Your task to perform on an android device: change alarm snooze length Image 0: 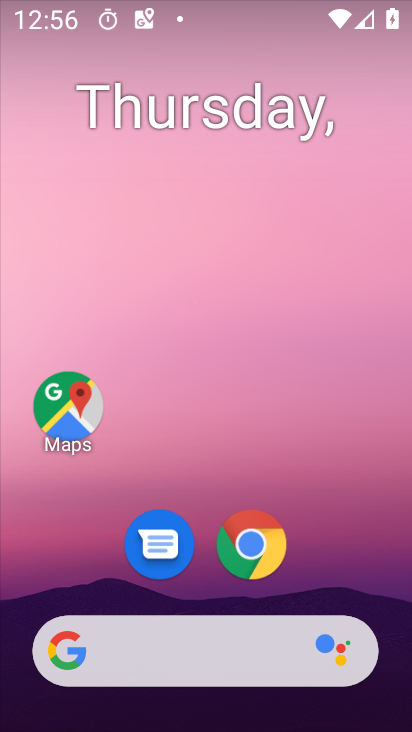
Step 0: drag from (3, 730) to (237, 219)
Your task to perform on an android device: change alarm snooze length Image 1: 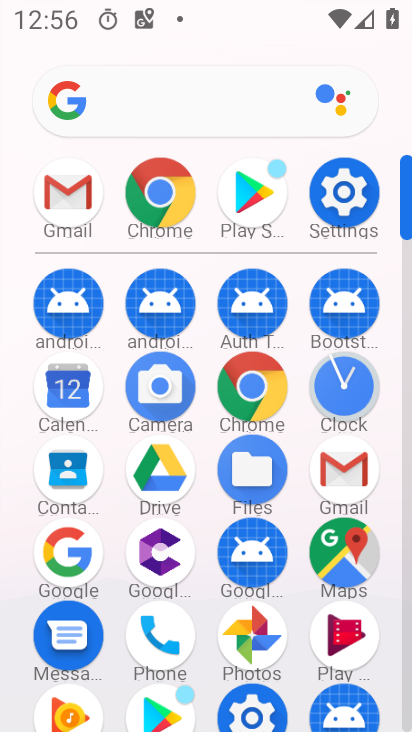
Step 1: click (342, 391)
Your task to perform on an android device: change alarm snooze length Image 2: 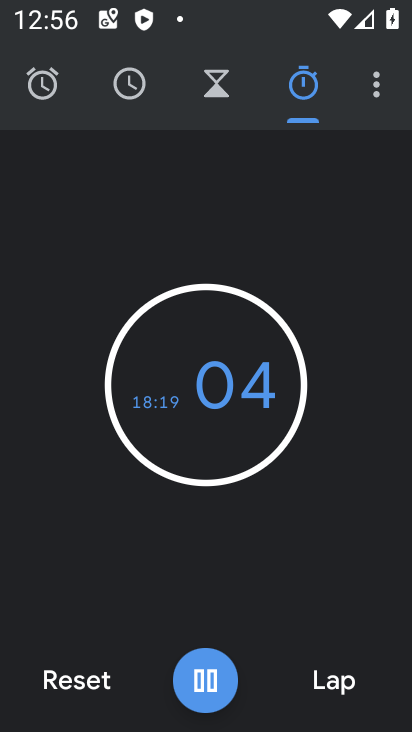
Step 2: click (384, 94)
Your task to perform on an android device: change alarm snooze length Image 3: 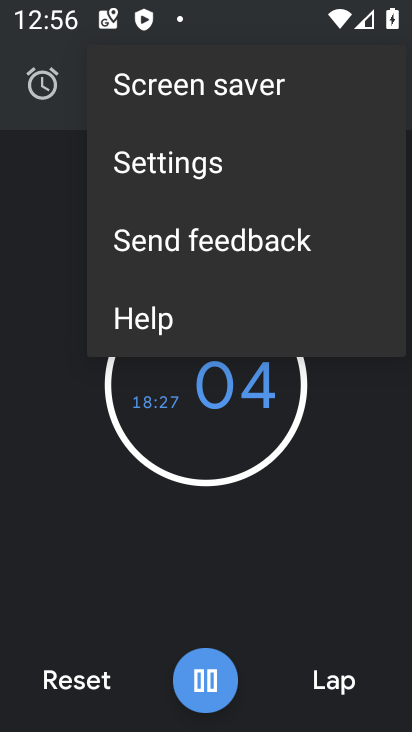
Step 3: click (183, 162)
Your task to perform on an android device: change alarm snooze length Image 4: 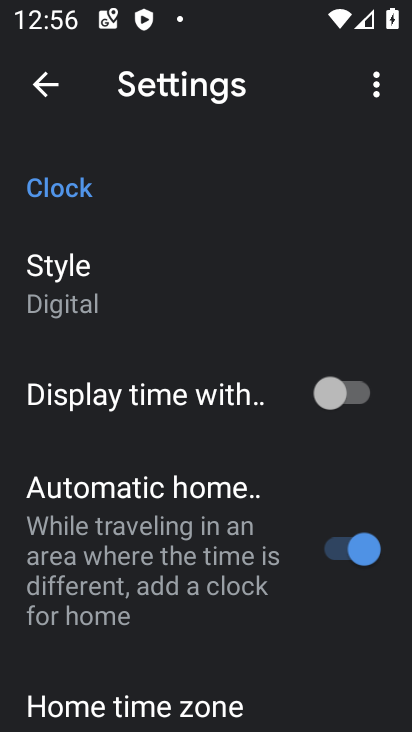
Step 4: drag from (107, 691) to (198, 148)
Your task to perform on an android device: change alarm snooze length Image 5: 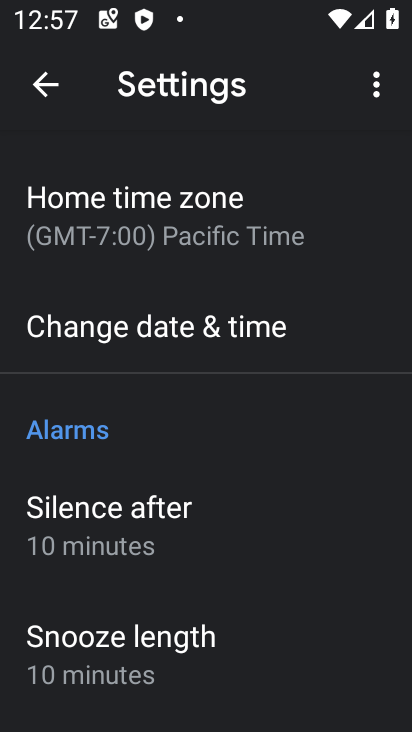
Step 5: click (104, 664)
Your task to perform on an android device: change alarm snooze length Image 6: 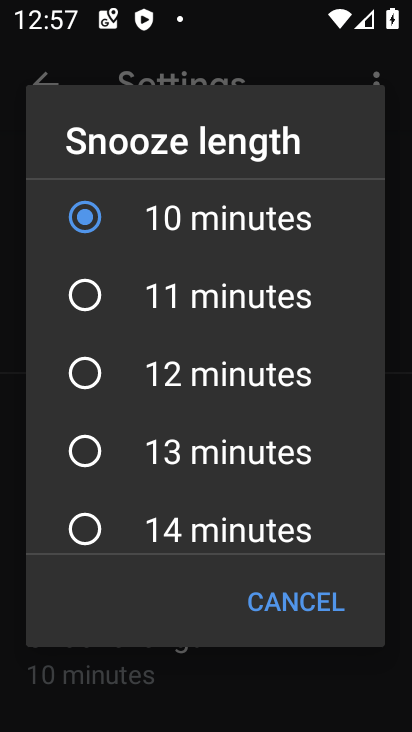
Step 6: click (83, 305)
Your task to perform on an android device: change alarm snooze length Image 7: 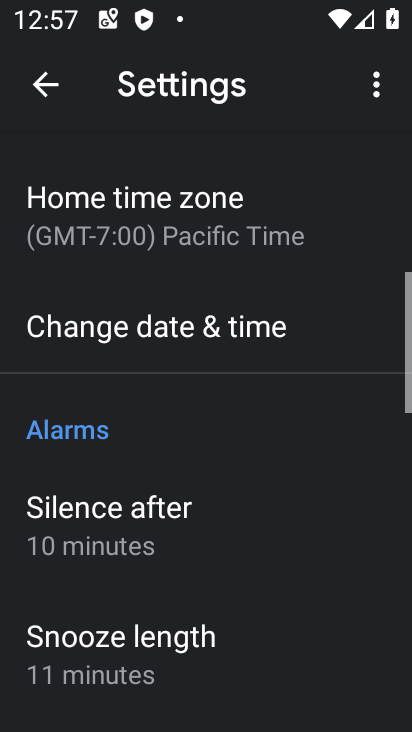
Step 7: task complete